Your task to perform on an android device: toggle pop-ups in chrome Image 0: 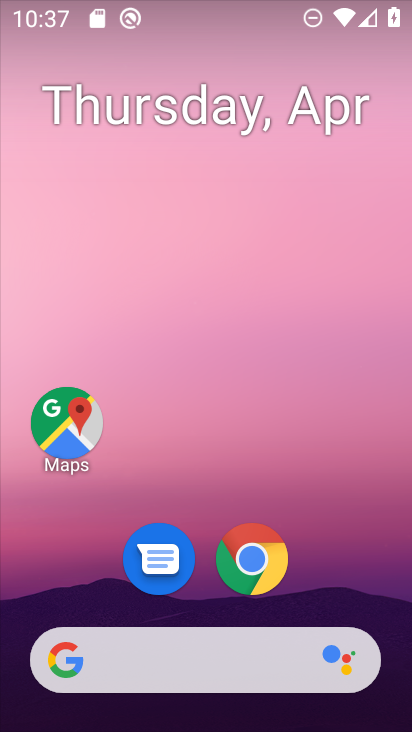
Step 0: drag from (249, 686) to (253, 122)
Your task to perform on an android device: toggle pop-ups in chrome Image 1: 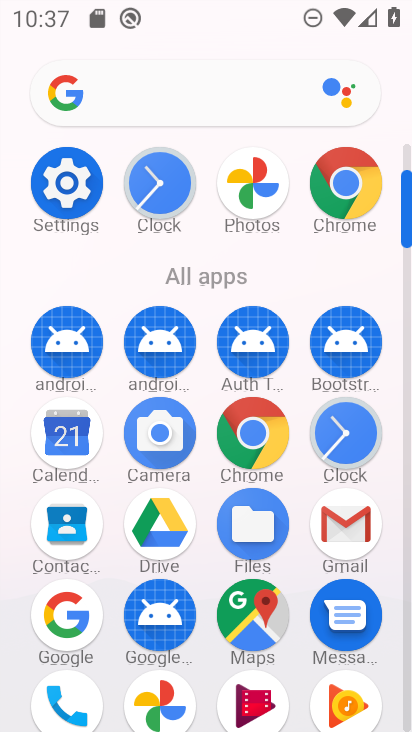
Step 1: click (333, 181)
Your task to perform on an android device: toggle pop-ups in chrome Image 2: 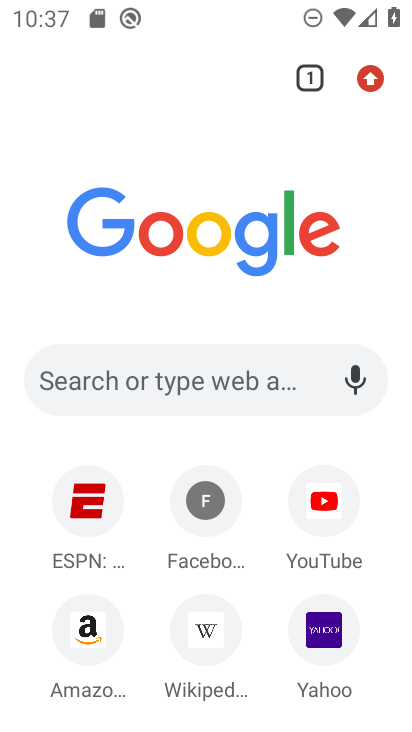
Step 2: click (374, 70)
Your task to perform on an android device: toggle pop-ups in chrome Image 3: 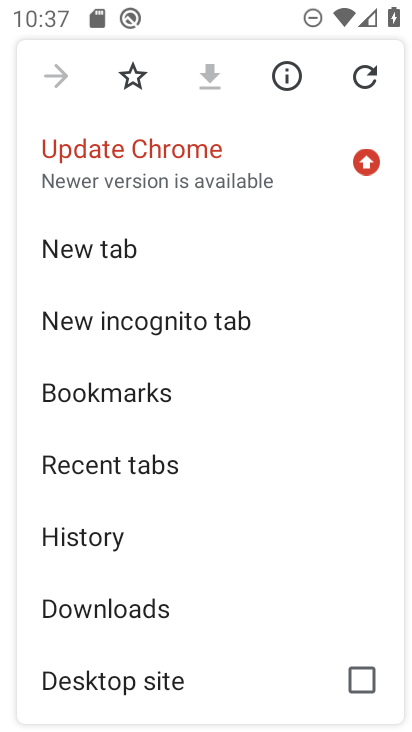
Step 3: drag from (170, 560) to (278, 304)
Your task to perform on an android device: toggle pop-ups in chrome Image 4: 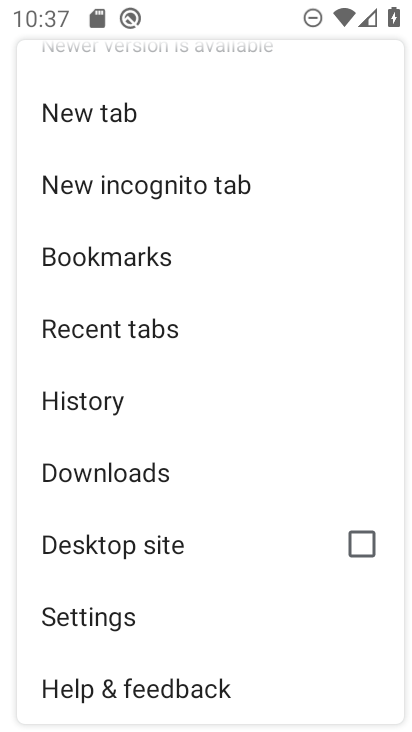
Step 4: click (114, 607)
Your task to perform on an android device: toggle pop-ups in chrome Image 5: 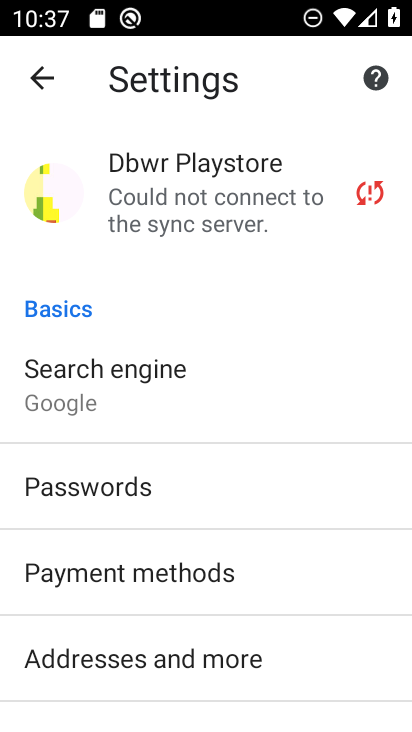
Step 5: drag from (130, 557) to (154, 342)
Your task to perform on an android device: toggle pop-ups in chrome Image 6: 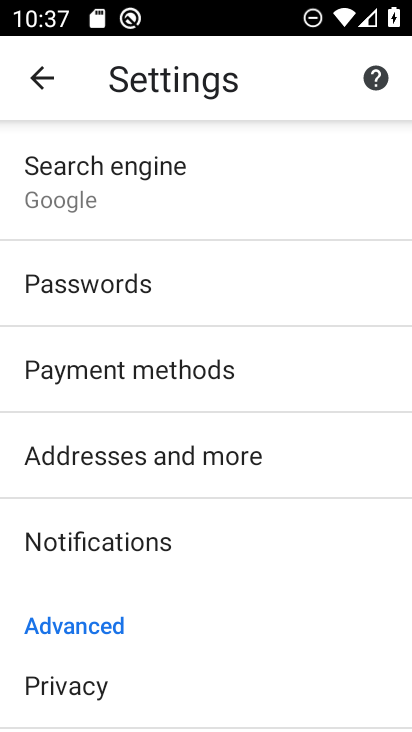
Step 6: drag from (179, 588) to (217, 402)
Your task to perform on an android device: toggle pop-ups in chrome Image 7: 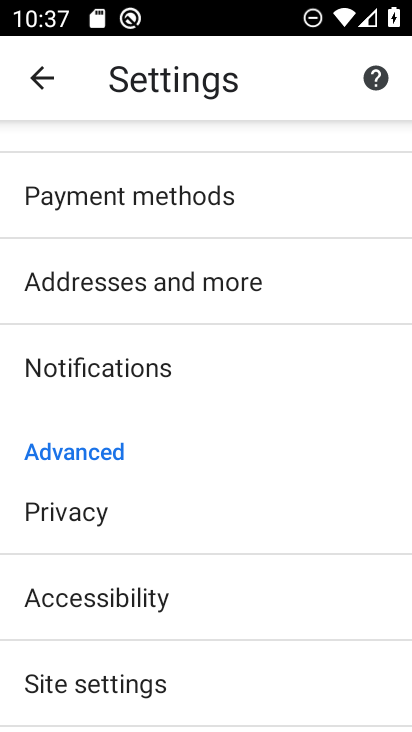
Step 7: click (102, 679)
Your task to perform on an android device: toggle pop-ups in chrome Image 8: 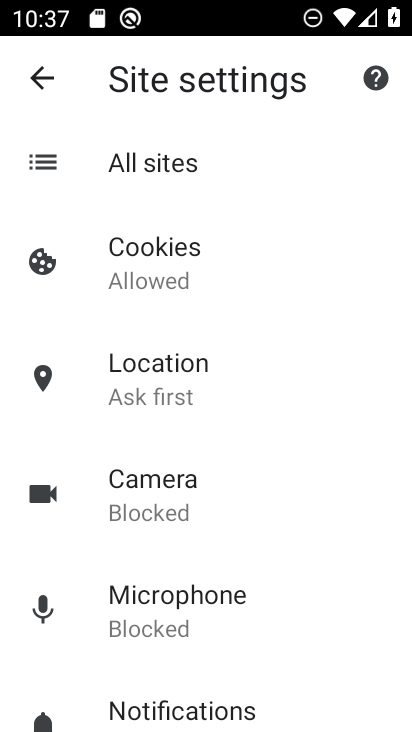
Step 8: drag from (108, 661) to (183, 363)
Your task to perform on an android device: toggle pop-ups in chrome Image 9: 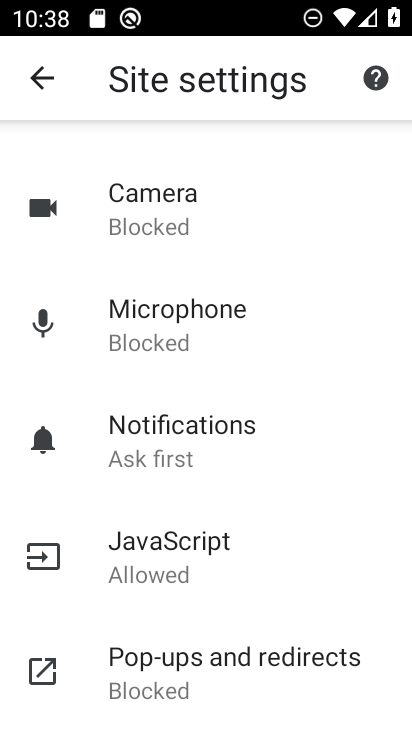
Step 9: click (120, 666)
Your task to perform on an android device: toggle pop-ups in chrome Image 10: 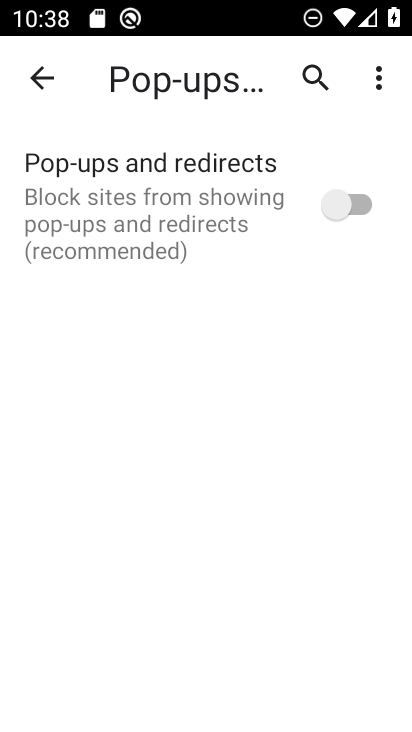
Step 10: click (344, 222)
Your task to perform on an android device: toggle pop-ups in chrome Image 11: 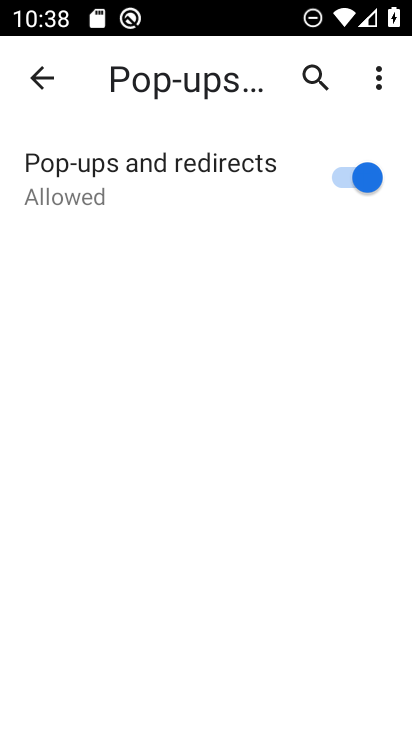
Step 11: task complete